Your task to perform on an android device: What's on my calendar tomorrow? Image 0: 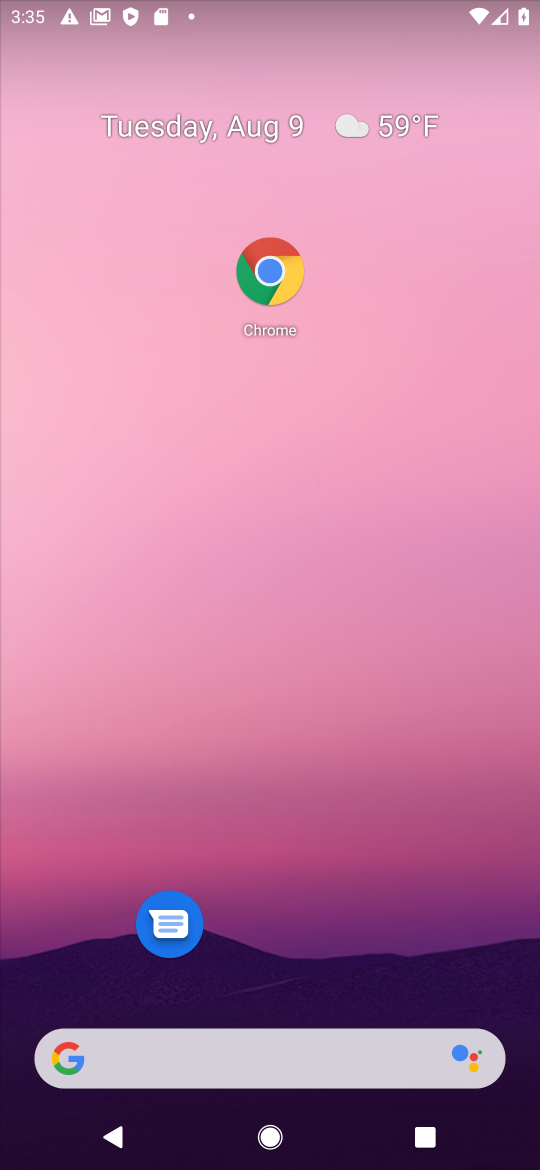
Step 0: drag from (183, 1114) to (281, 354)
Your task to perform on an android device: What's on my calendar tomorrow? Image 1: 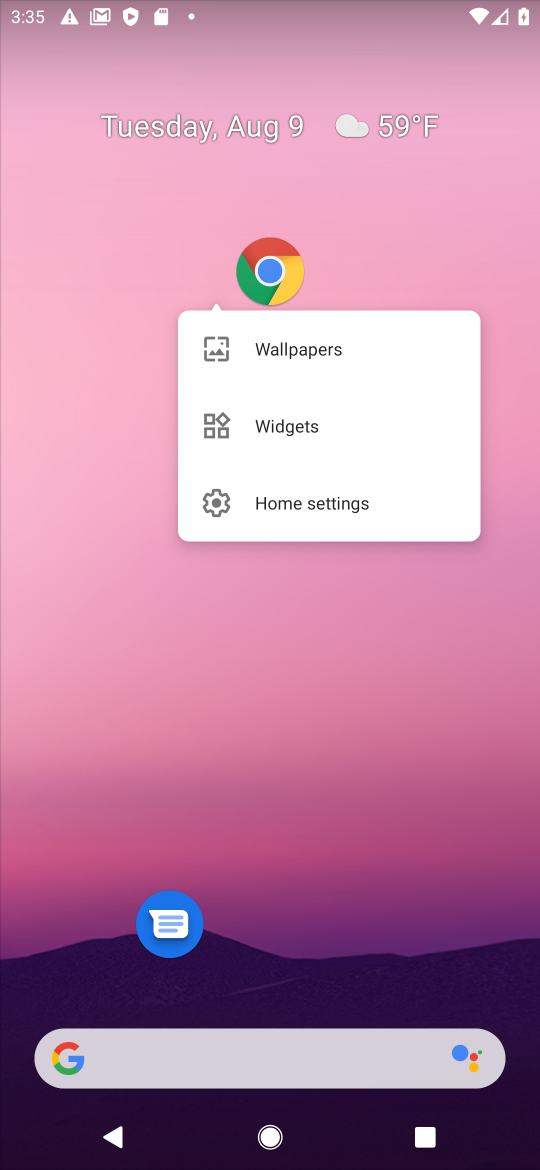
Step 1: drag from (215, 639) to (254, 518)
Your task to perform on an android device: What's on my calendar tomorrow? Image 2: 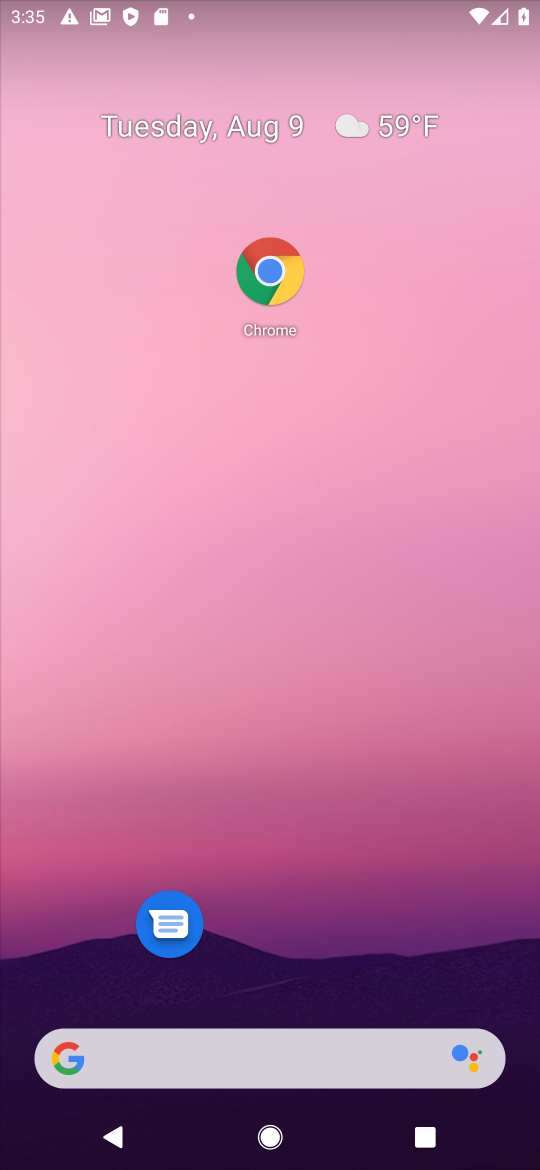
Step 2: drag from (275, 669) to (268, 199)
Your task to perform on an android device: What's on my calendar tomorrow? Image 3: 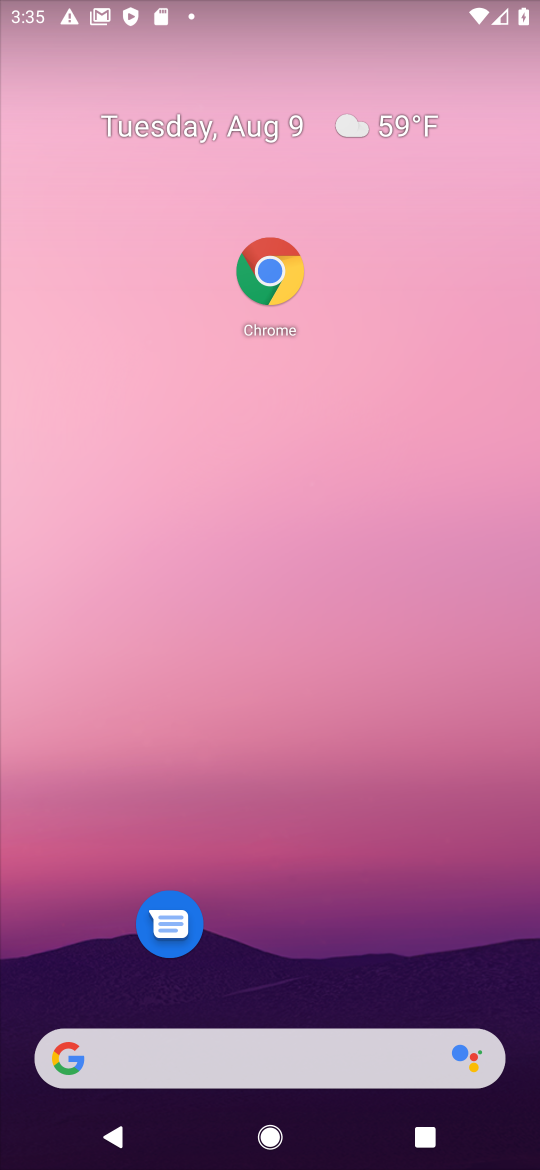
Step 3: click (316, 66)
Your task to perform on an android device: What's on my calendar tomorrow? Image 4: 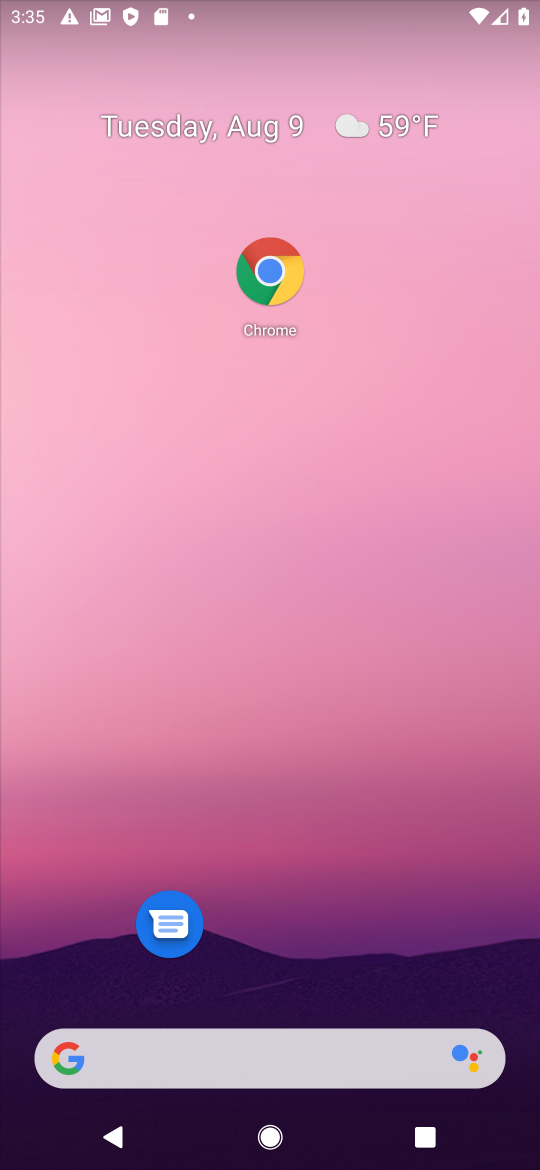
Step 4: drag from (256, 797) to (270, 121)
Your task to perform on an android device: What's on my calendar tomorrow? Image 5: 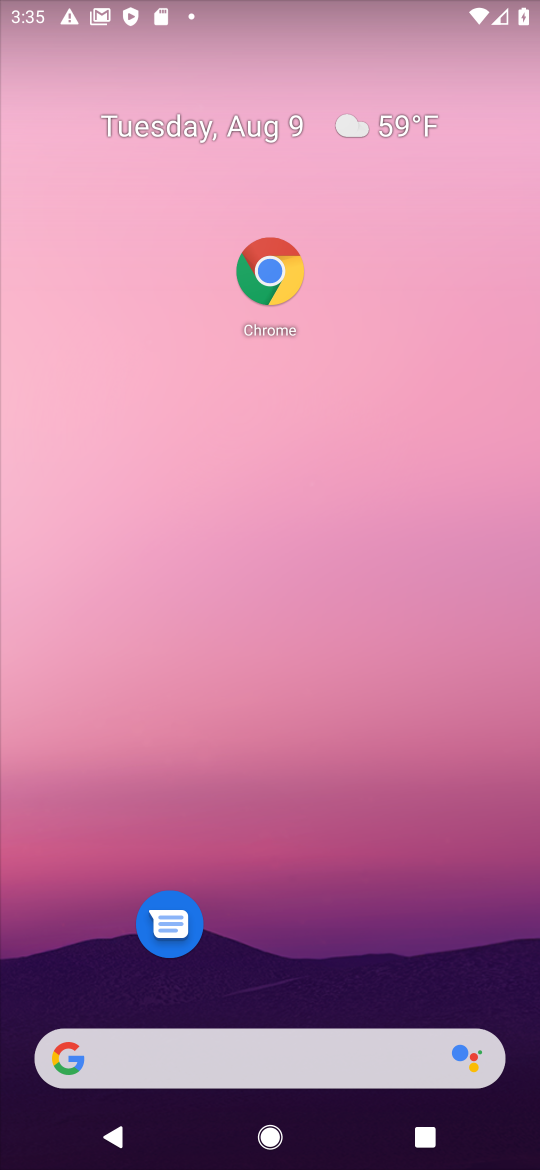
Step 5: drag from (320, 381) to (314, 207)
Your task to perform on an android device: What's on my calendar tomorrow? Image 6: 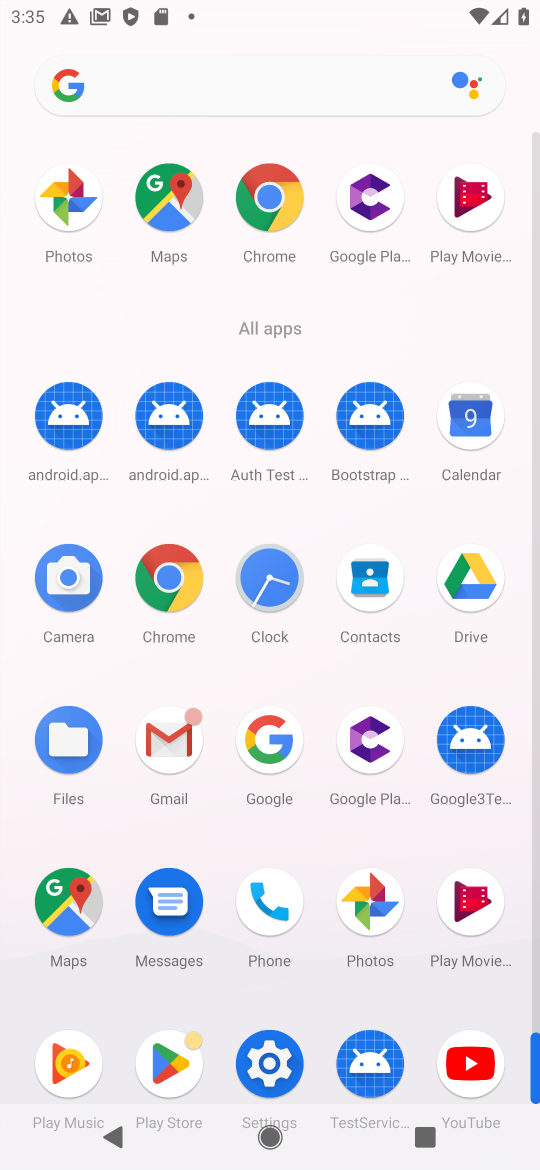
Step 6: click (460, 413)
Your task to perform on an android device: What's on my calendar tomorrow? Image 7: 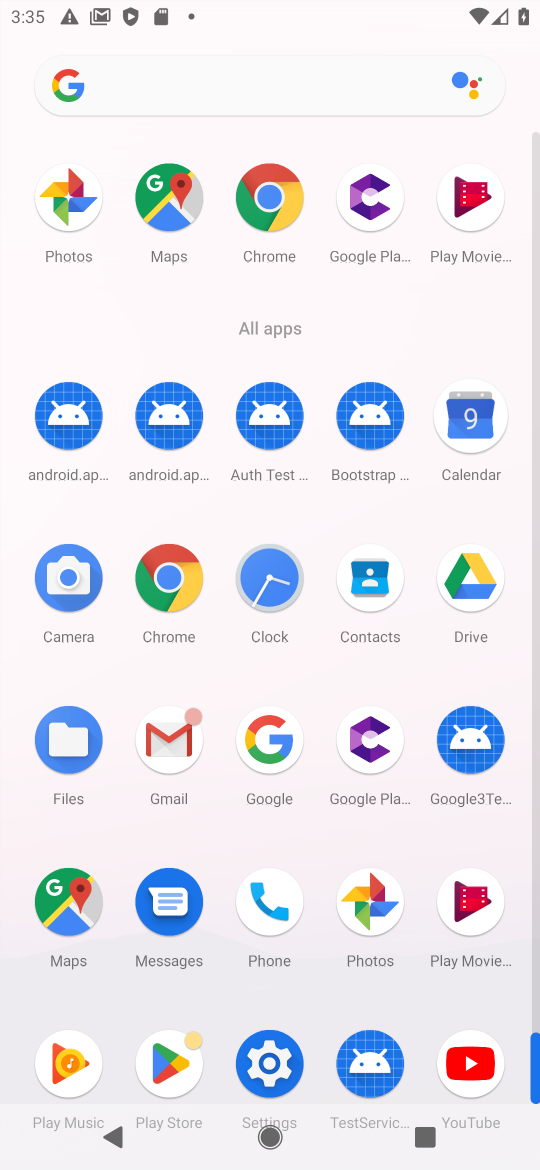
Step 7: click (470, 419)
Your task to perform on an android device: What's on my calendar tomorrow? Image 8: 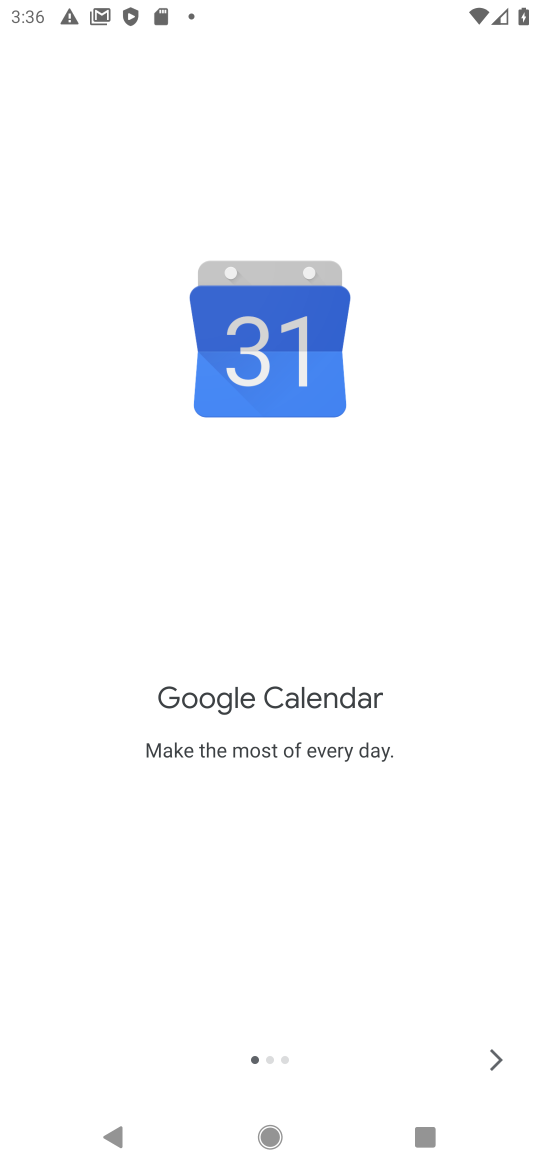
Step 8: click (476, 1063)
Your task to perform on an android device: What's on my calendar tomorrow? Image 9: 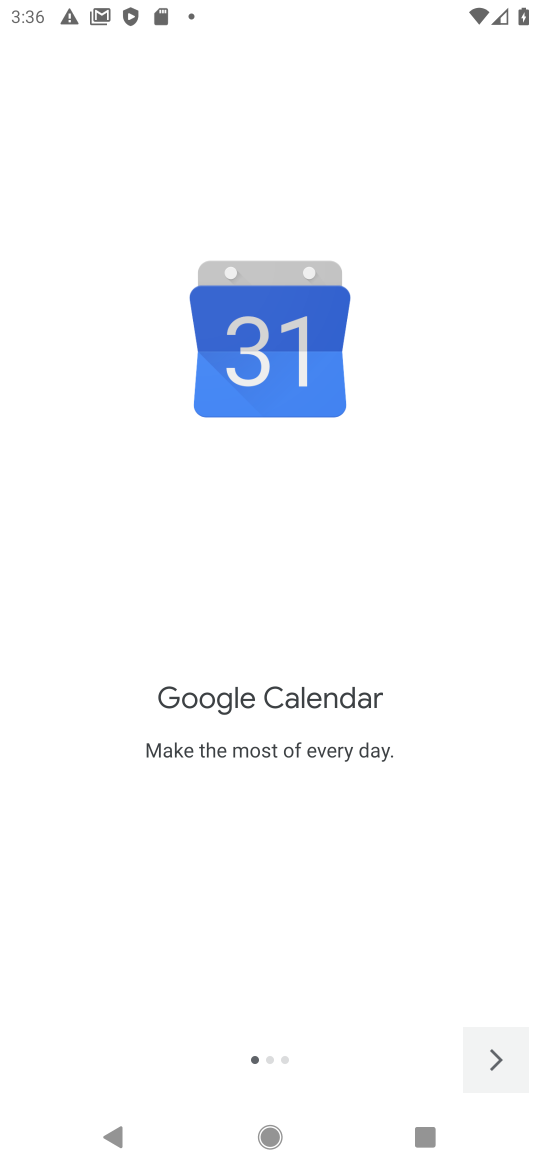
Step 9: click (496, 1067)
Your task to perform on an android device: What's on my calendar tomorrow? Image 10: 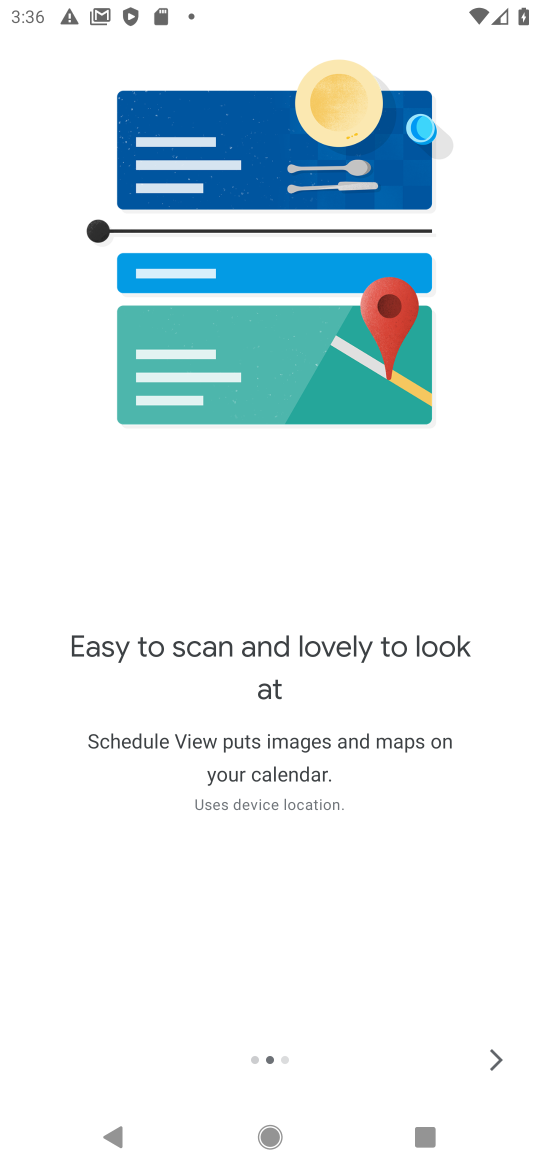
Step 10: click (495, 1069)
Your task to perform on an android device: What's on my calendar tomorrow? Image 11: 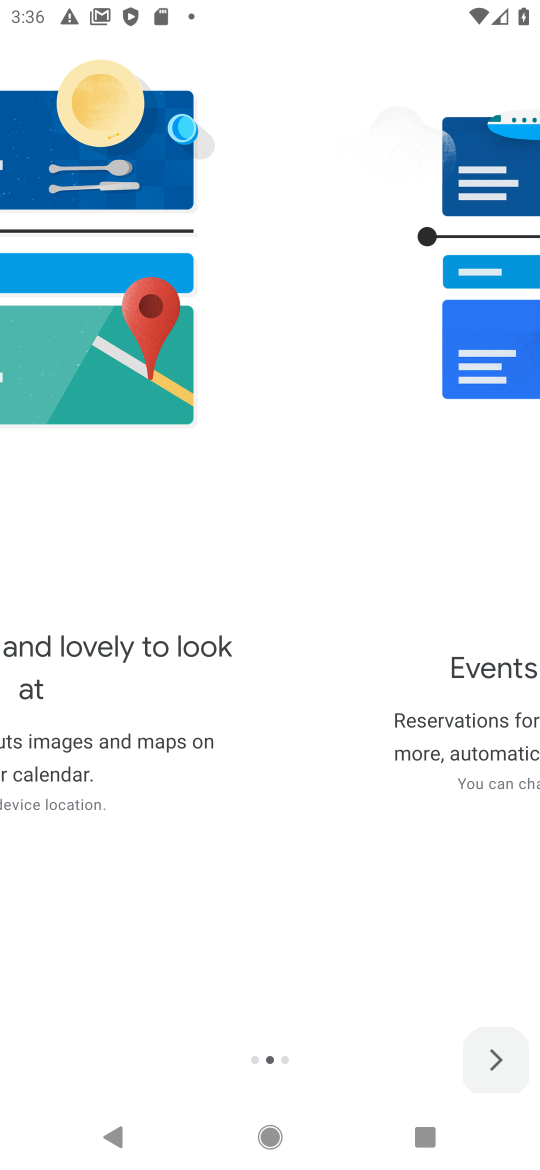
Step 11: click (501, 1066)
Your task to perform on an android device: What's on my calendar tomorrow? Image 12: 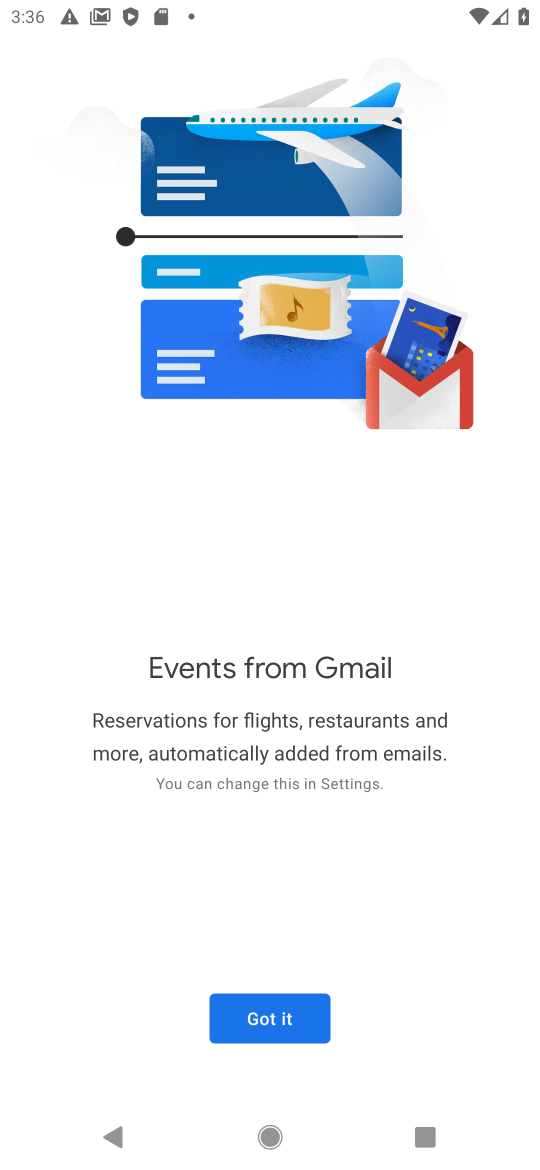
Step 12: click (294, 1022)
Your task to perform on an android device: What's on my calendar tomorrow? Image 13: 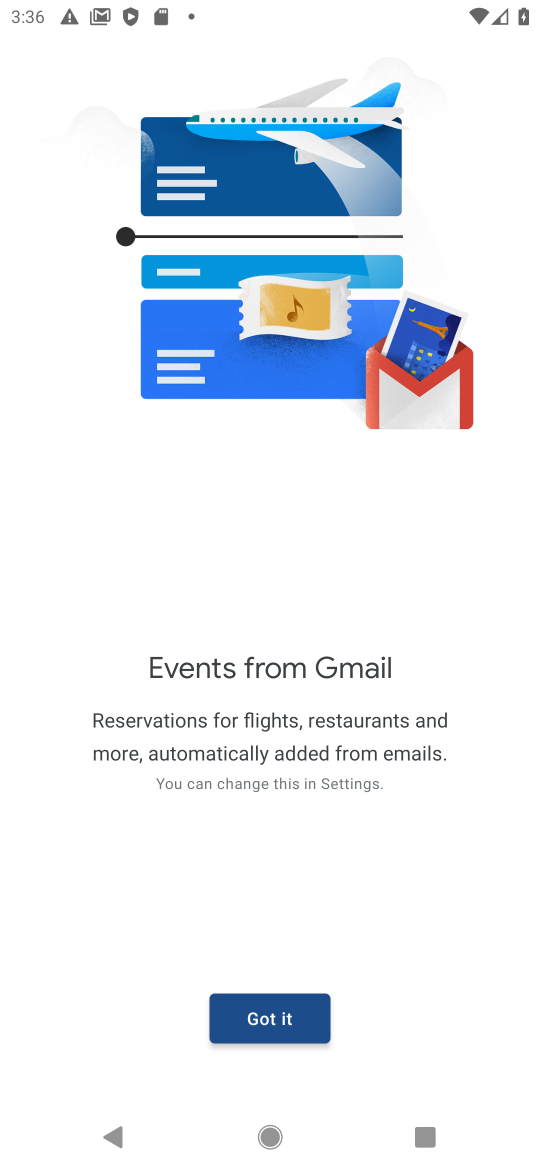
Step 13: click (287, 1018)
Your task to perform on an android device: What's on my calendar tomorrow? Image 14: 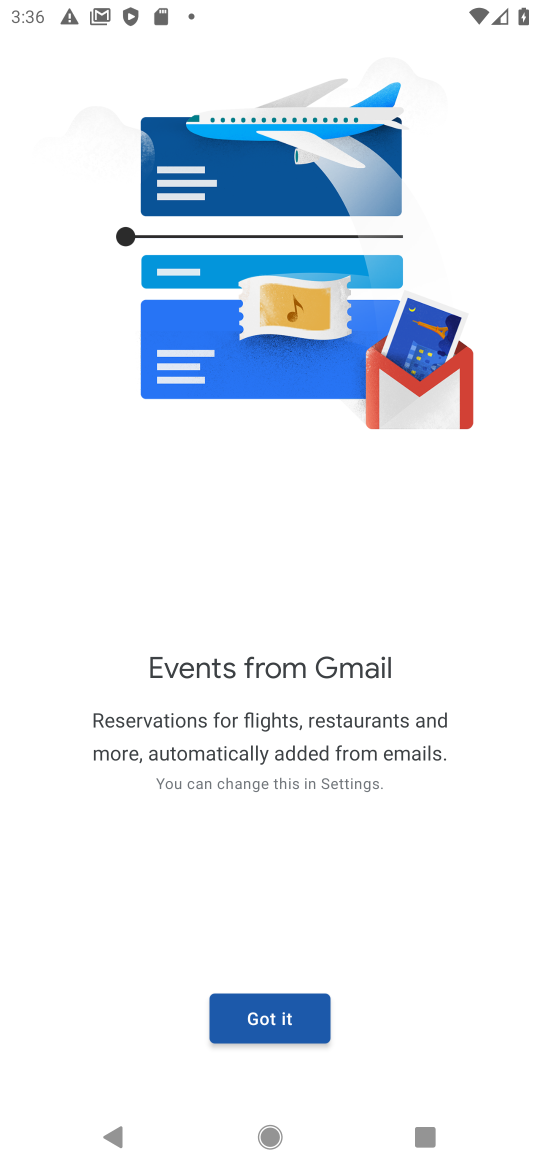
Step 14: click (287, 1018)
Your task to perform on an android device: What's on my calendar tomorrow? Image 15: 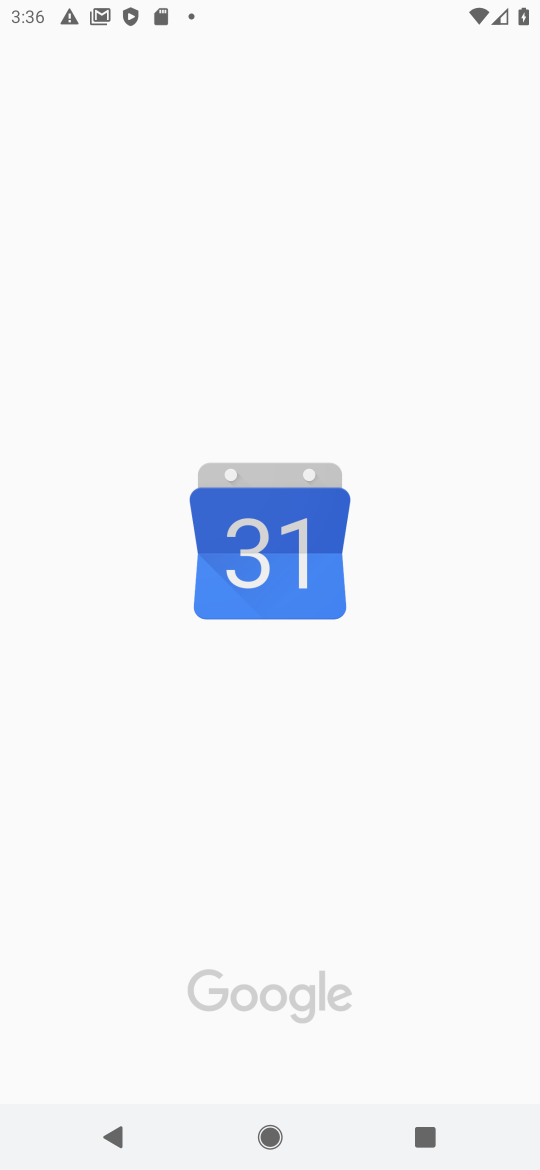
Step 15: click (294, 1025)
Your task to perform on an android device: What's on my calendar tomorrow? Image 16: 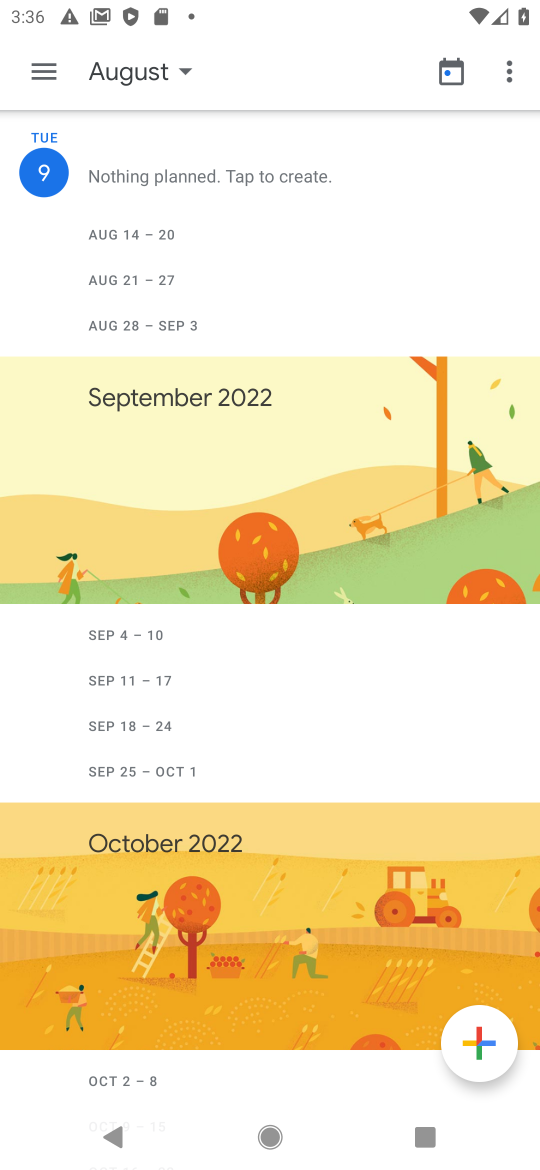
Step 16: click (194, 64)
Your task to perform on an android device: What's on my calendar tomorrow? Image 17: 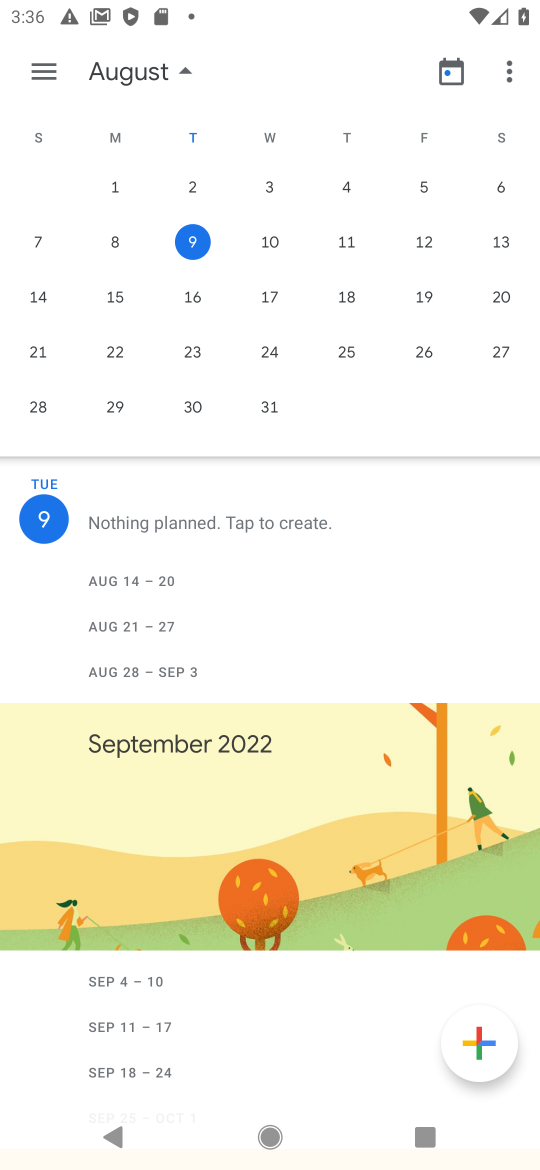
Step 17: click (21, 252)
Your task to perform on an android device: What's on my calendar tomorrow? Image 18: 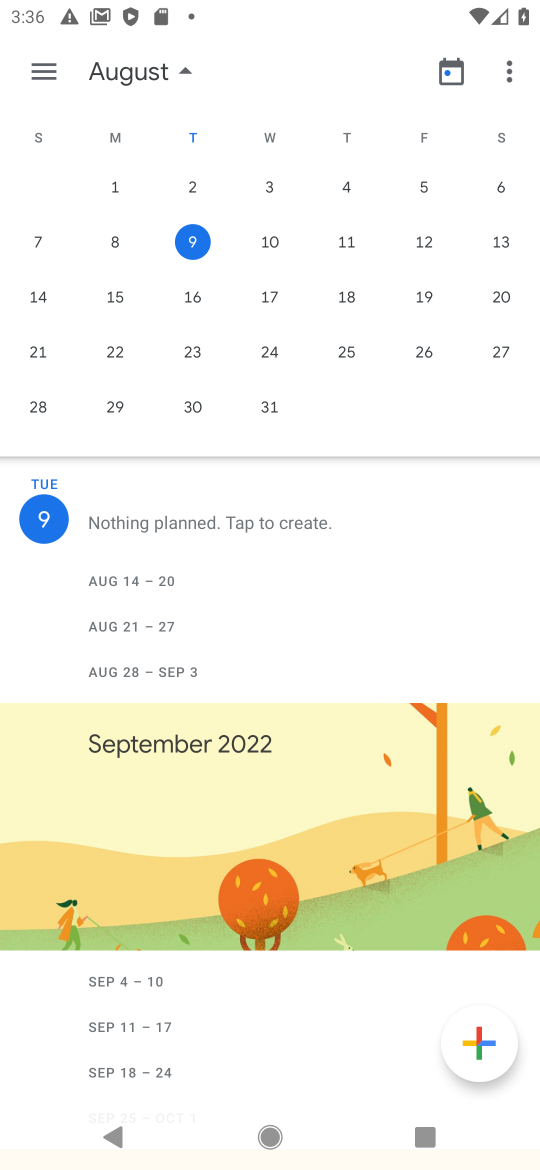
Step 18: click (271, 228)
Your task to perform on an android device: What's on my calendar tomorrow? Image 19: 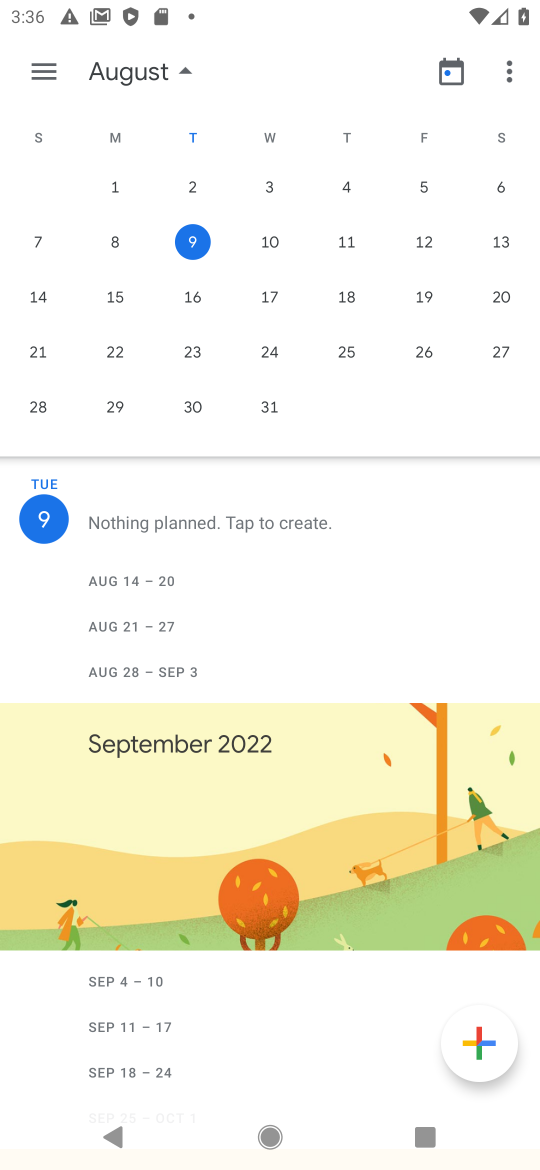
Step 19: click (257, 246)
Your task to perform on an android device: What's on my calendar tomorrow? Image 20: 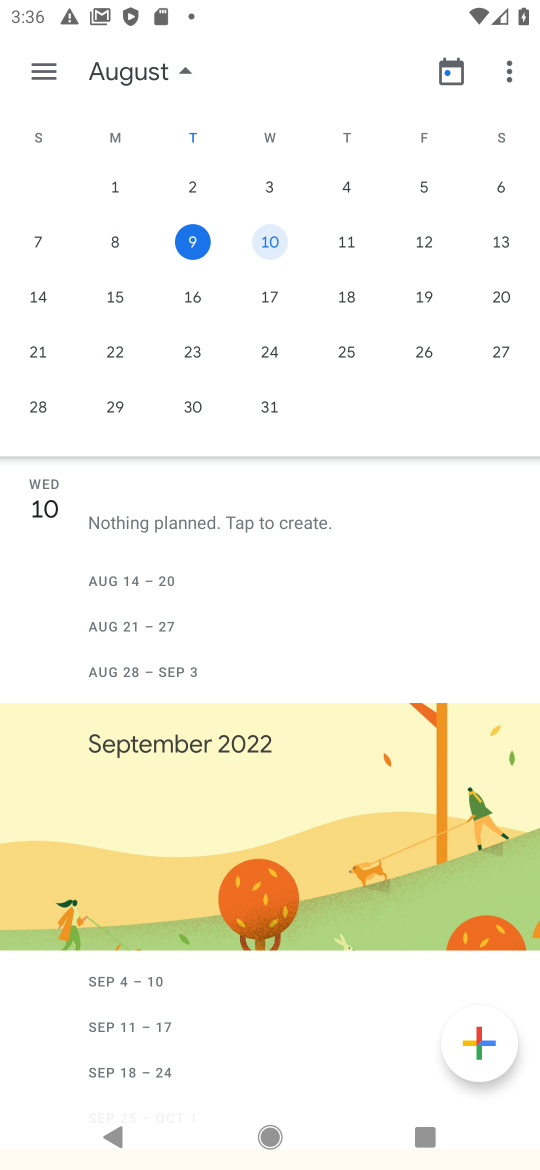
Step 20: click (284, 244)
Your task to perform on an android device: What's on my calendar tomorrow? Image 21: 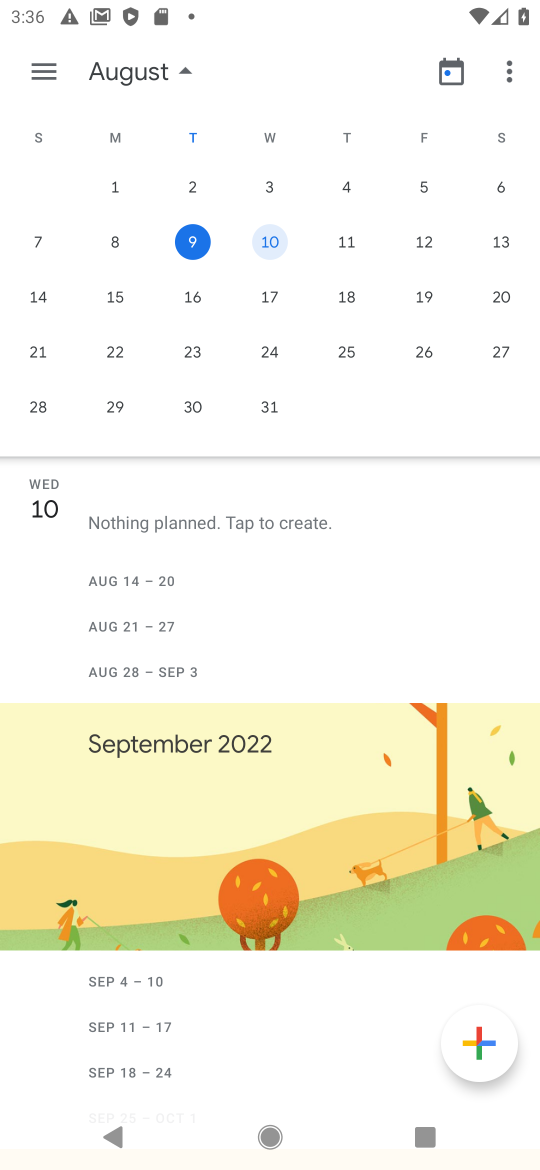
Step 21: task complete